Your task to perform on an android device: check out phone information Image 0: 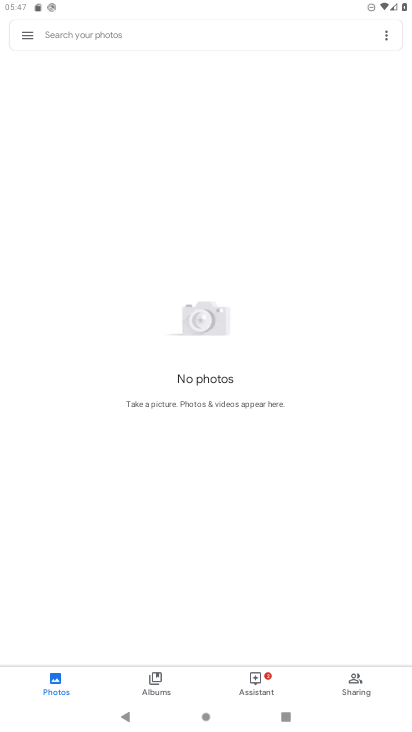
Step 0: press home button
Your task to perform on an android device: check out phone information Image 1: 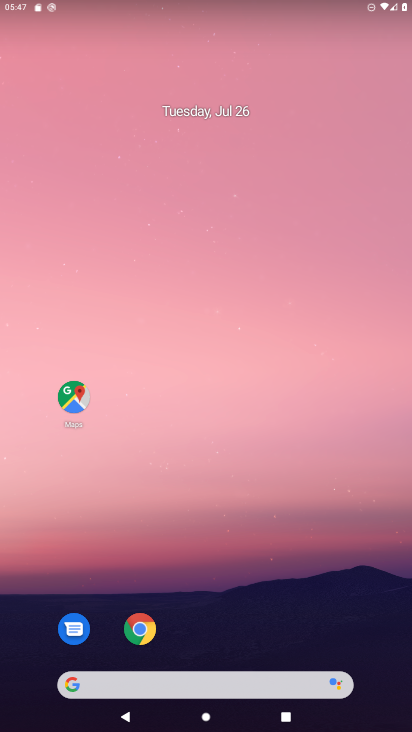
Step 1: drag from (254, 520) to (292, 102)
Your task to perform on an android device: check out phone information Image 2: 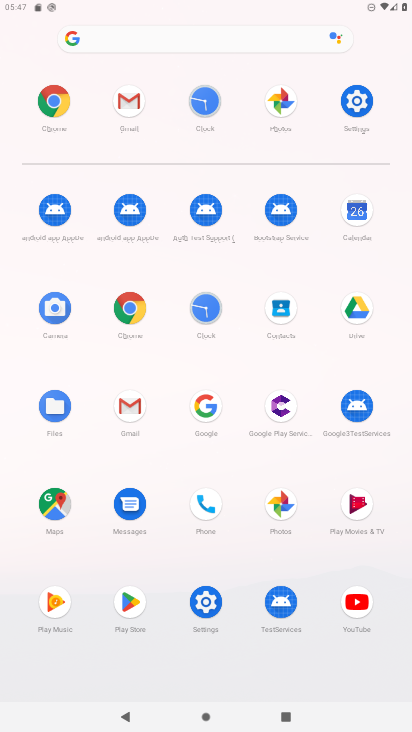
Step 2: click (362, 102)
Your task to perform on an android device: check out phone information Image 3: 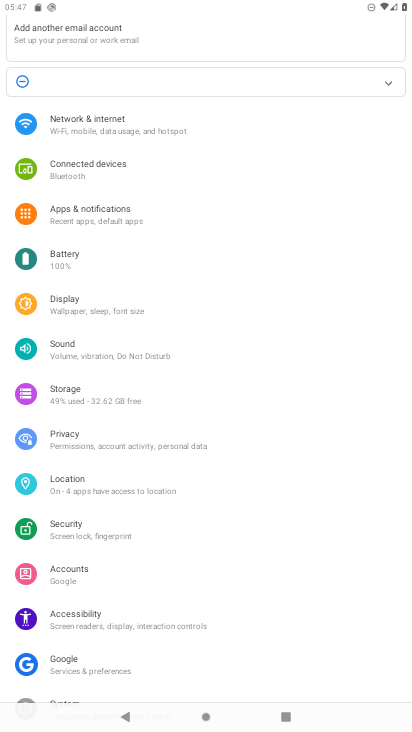
Step 3: drag from (225, 518) to (252, 239)
Your task to perform on an android device: check out phone information Image 4: 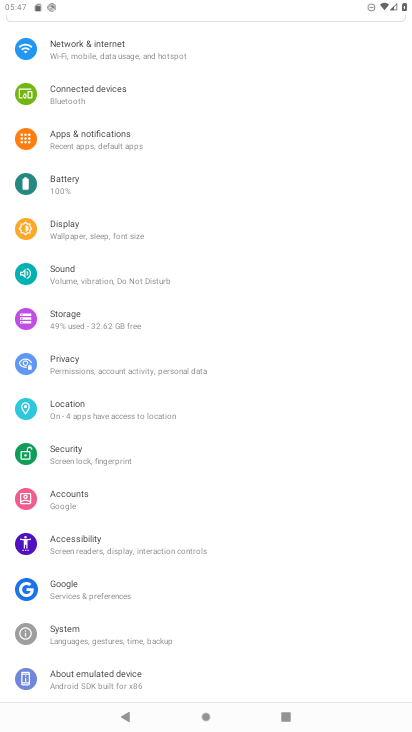
Step 4: click (102, 676)
Your task to perform on an android device: check out phone information Image 5: 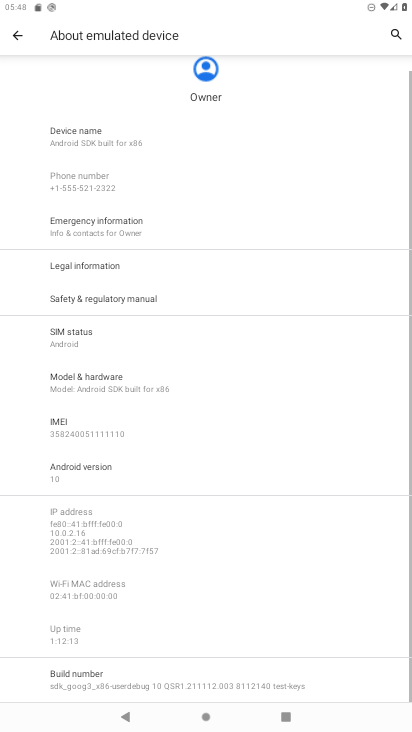
Step 5: task complete